Your task to perform on an android device: move a message to another label in the gmail app Image 0: 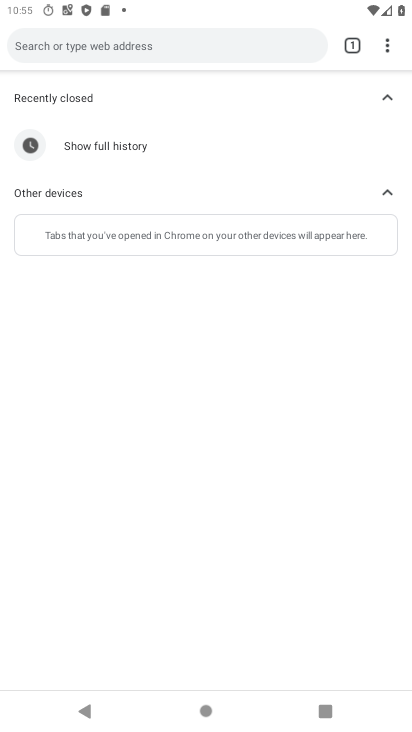
Step 0: press home button
Your task to perform on an android device: move a message to another label in the gmail app Image 1: 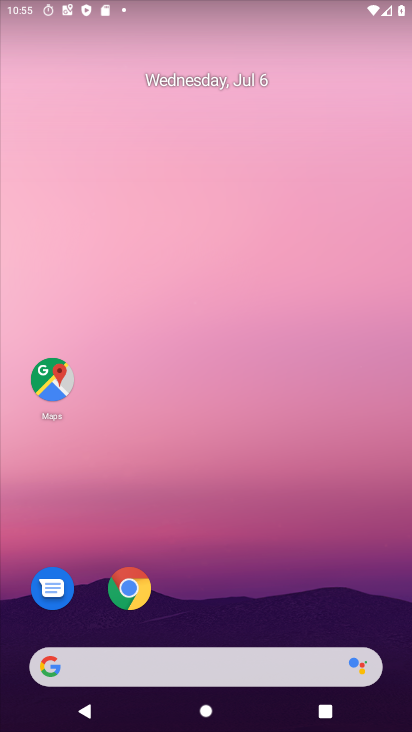
Step 1: drag from (235, 708) to (248, 126)
Your task to perform on an android device: move a message to another label in the gmail app Image 2: 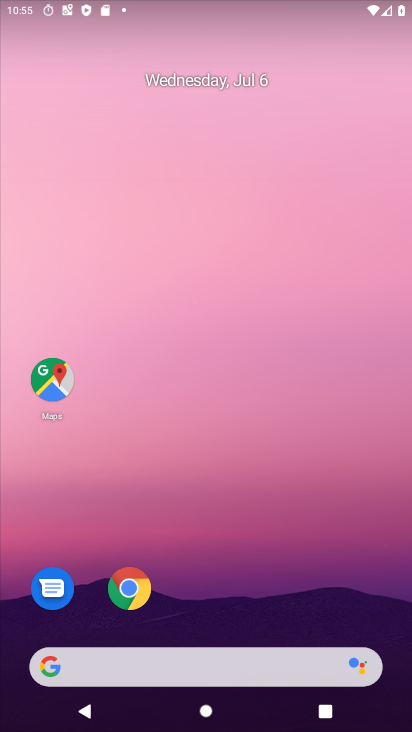
Step 2: drag from (268, 708) to (244, 83)
Your task to perform on an android device: move a message to another label in the gmail app Image 3: 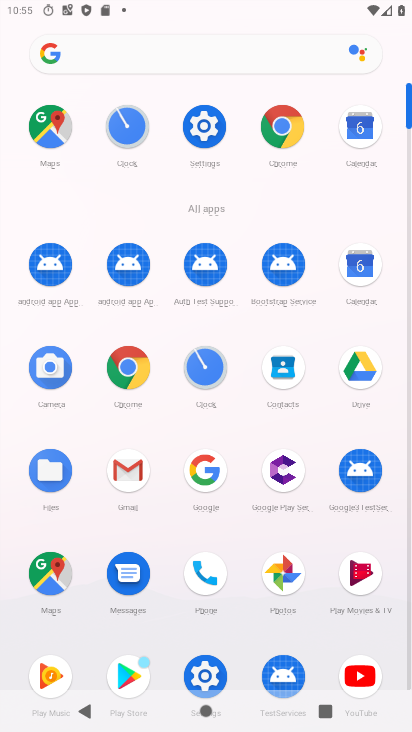
Step 3: click (138, 470)
Your task to perform on an android device: move a message to another label in the gmail app Image 4: 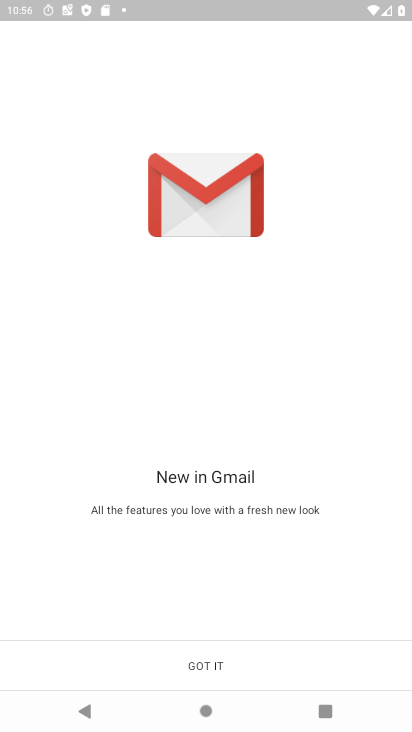
Step 4: click (221, 662)
Your task to perform on an android device: move a message to another label in the gmail app Image 5: 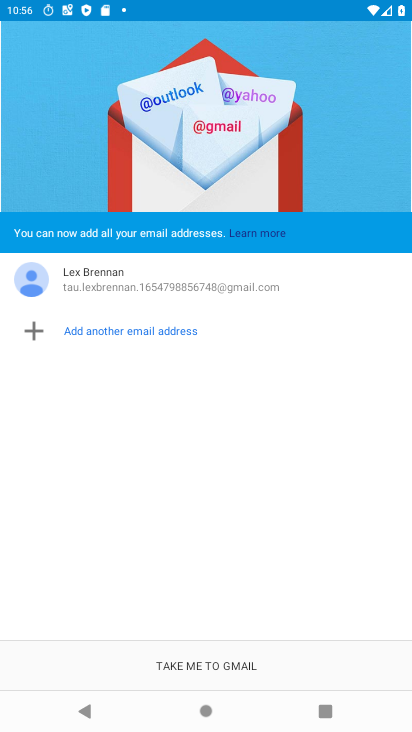
Step 5: click (180, 661)
Your task to perform on an android device: move a message to another label in the gmail app Image 6: 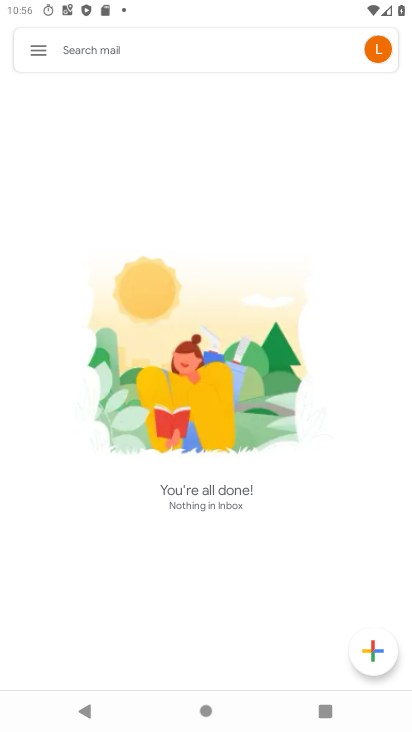
Step 6: task complete